Your task to perform on an android device: Is it going to rain tomorrow? Image 0: 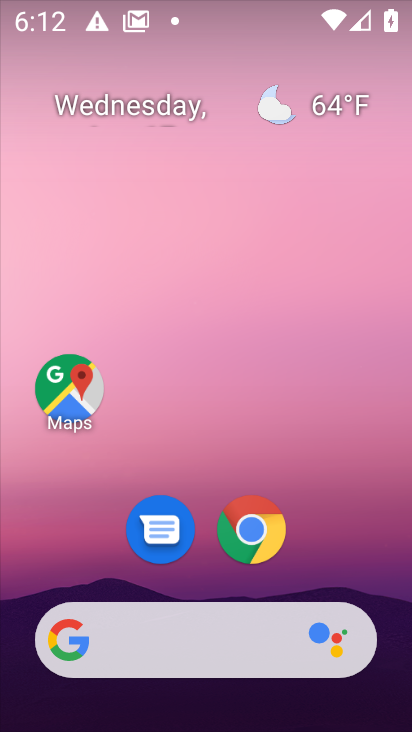
Step 0: click (161, 618)
Your task to perform on an android device: Is it going to rain tomorrow? Image 1: 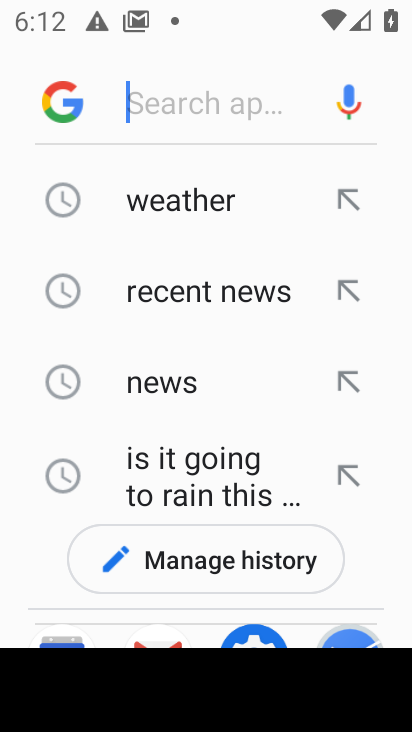
Step 1: click (174, 211)
Your task to perform on an android device: Is it going to rain tomorrow? Image 2: 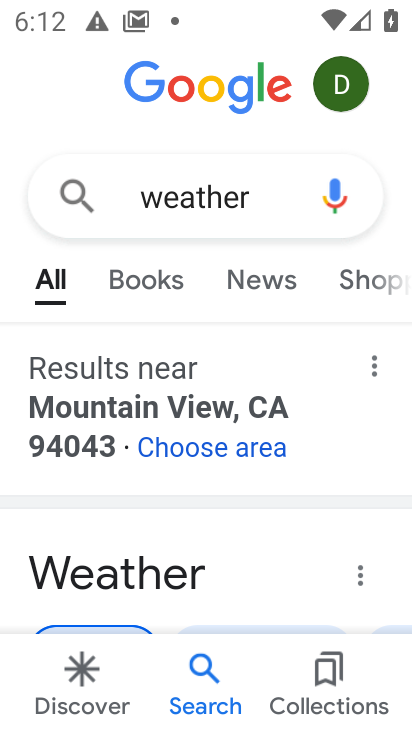
Step 2: click (242, 523)
Your task to perform on an android device: Is it going to rain tomorrow? Image 3: 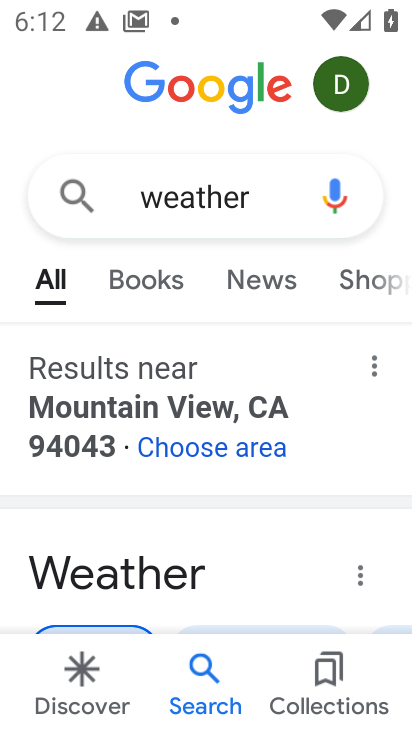
Step 3: drag from (242, 579) to (230, 410)
Your task to perform on an android device: Is it going to rain tomorrow? Image 4: 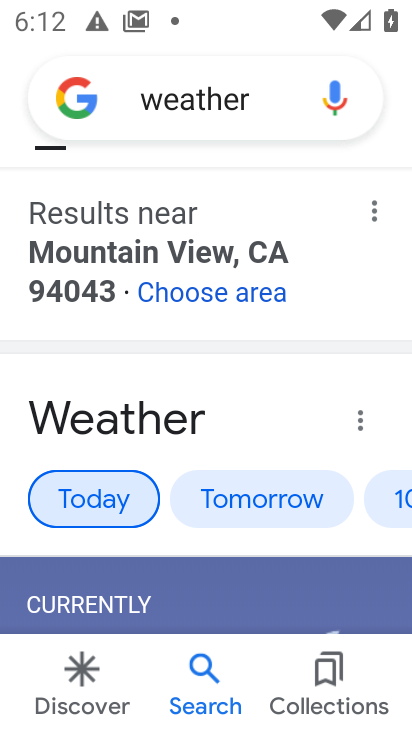
Step 4: click (234, 500)
Your task to perform on an android device: Is it going to rain tomorrow? Image 5: 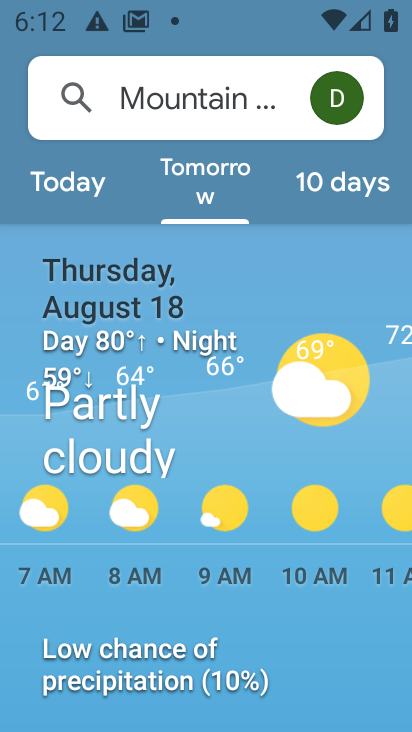
Step 5: task complete